Your task to perform on an android device: allow notifications from all sites in the chrome app Image 0: 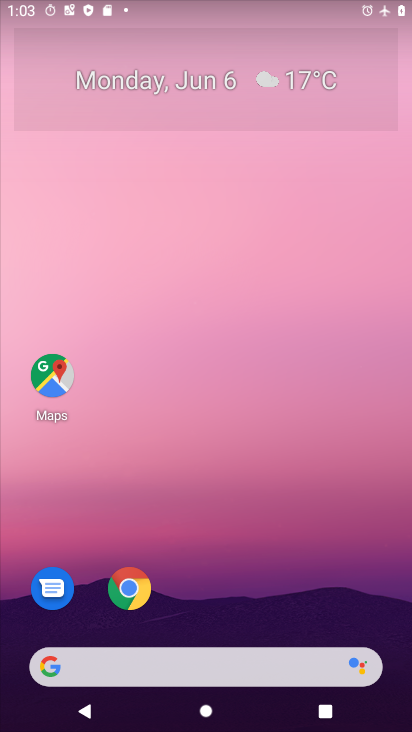
Step 0: drag from (243, 602) to (237, 197)
Your task to perform on an android device: allow notifications from all sites in the chrome app Image 1: 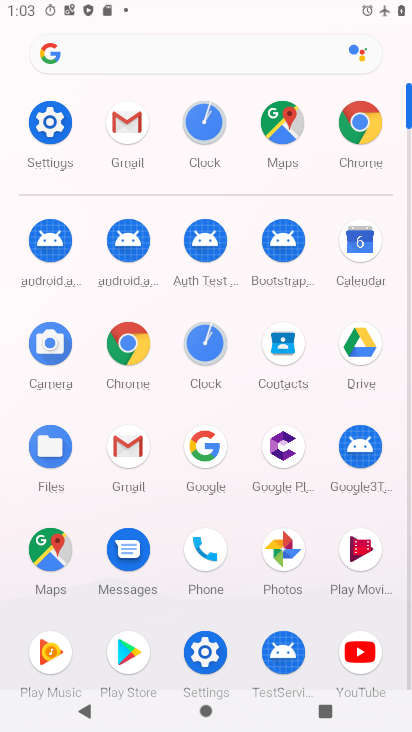
Step 1: click (128, 342)
Your task to perform on an android device: allow notifications from all sites in the chrome app Image 2: 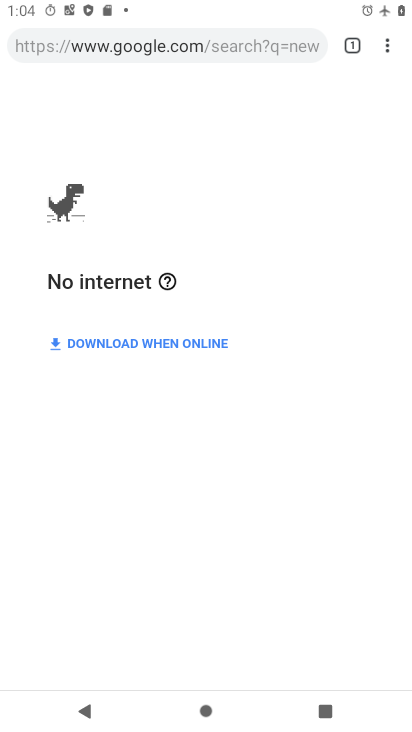
Step 2: drag from (393, 46) to (239, 505)
Your task to perform on an android device: allow notifications from all sites in the chrome app Image 3: 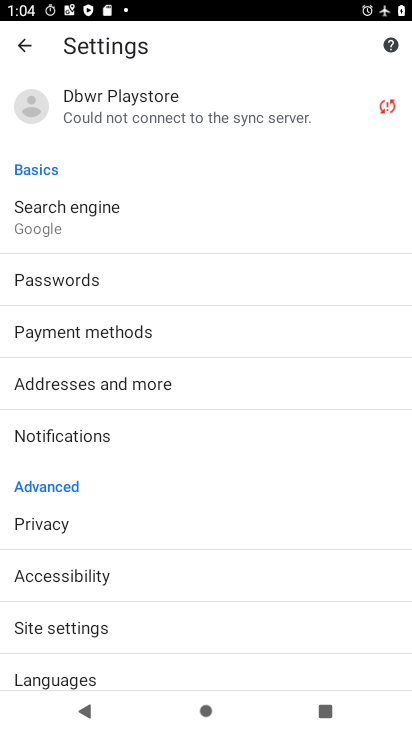
Step 3: click (96, 434)
Your task to perform on an android device: allow notifications from all sites in the chrome app Image 4: 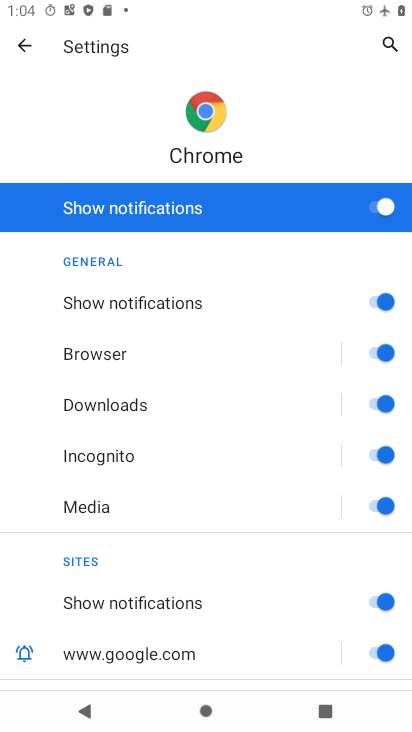
Step 4: task complete